Your task to perform on an android device: turn off priority inbox in the gmail app Image 0: 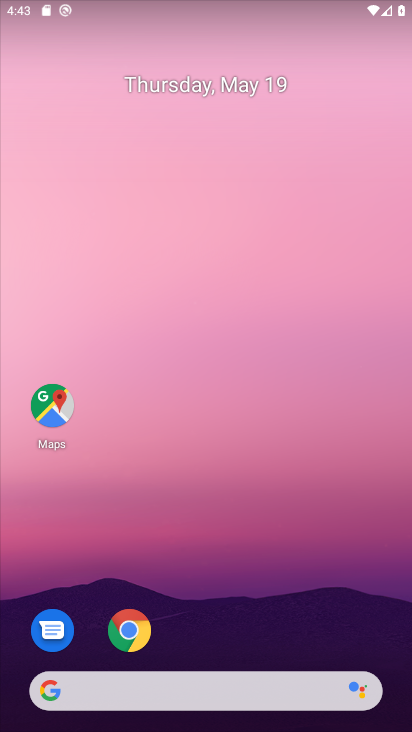
Step 0: drag from (259, 590) to (241, 58)
Your task to perform on an android device: turn off priority inbox in the gmail app Image 1: 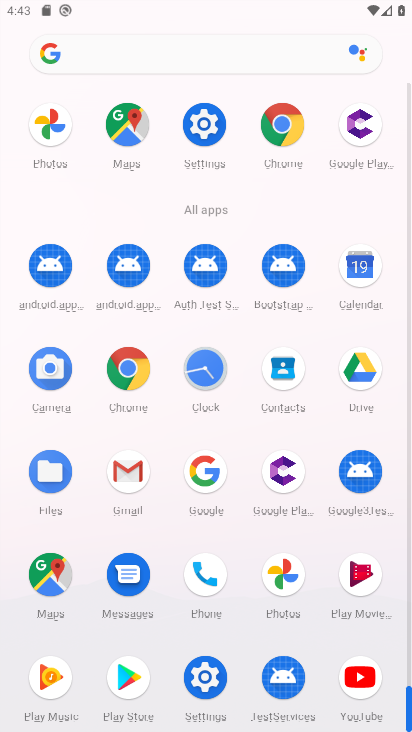
Step 1: drag from (25, 438) to (30, 197)
Your task to perform on an android device: turn off priority inbox in the gmail app Image 2: 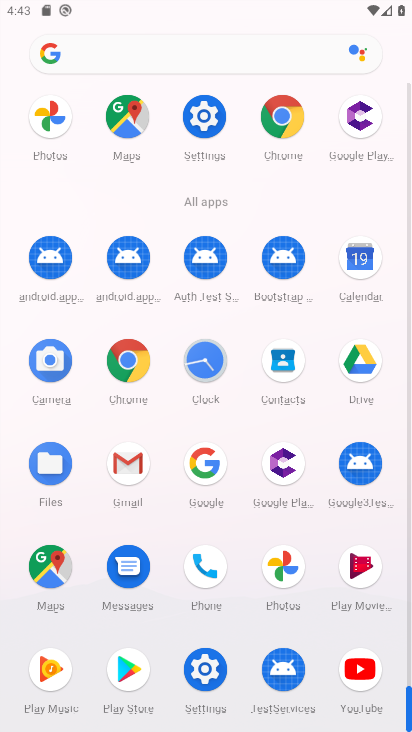
Step 2: click (125, 461)
Your task to perform on an android device: turn off priority inbox in the gmail app Image 3: 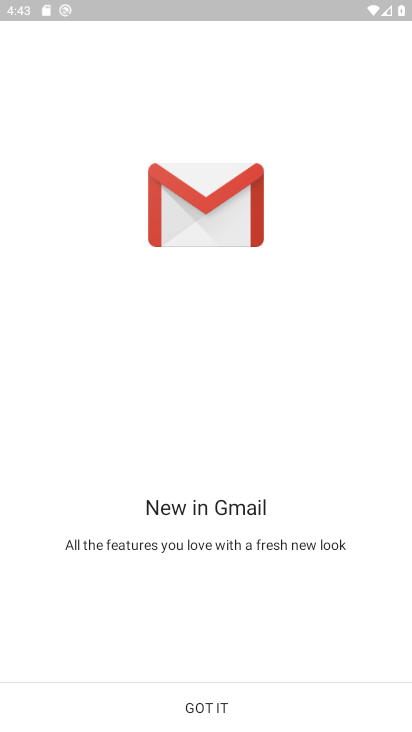
Step 3: click (189, 708)
Your task to perform on an android device: turn off priority inbox in the gmail app Image 4: 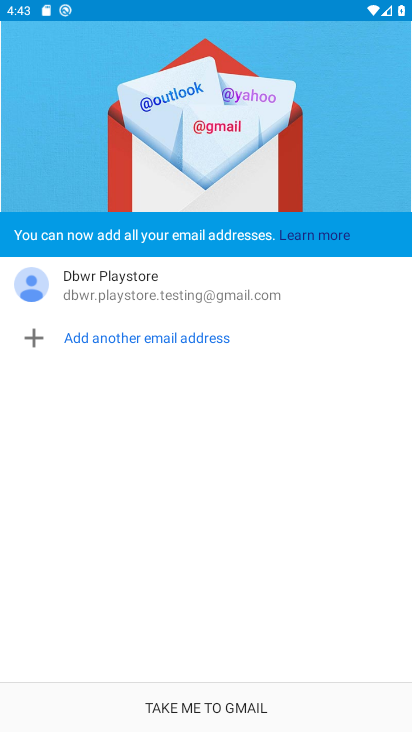
Step 4: click (193, 710)
Your task to perform on an android device: turn off priority inbox in the gmail app Image 5: 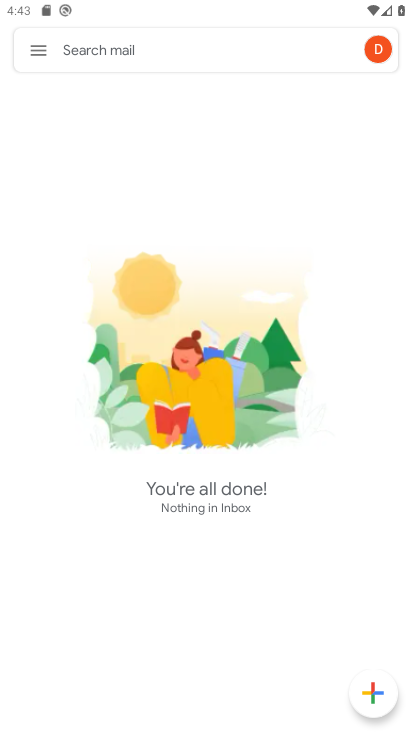
Step 5: click (34, 53)
Your task to perform on an android device: turn off priority inbox in the gmail app Image 6: 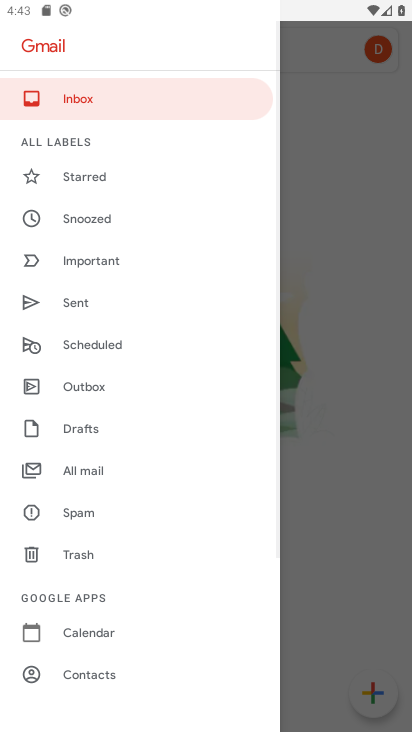
Step 6: drag from (148, 530) to (154, 184)
Your task to perform on an android device: turn off priority inbox in the gmail app Image 7: 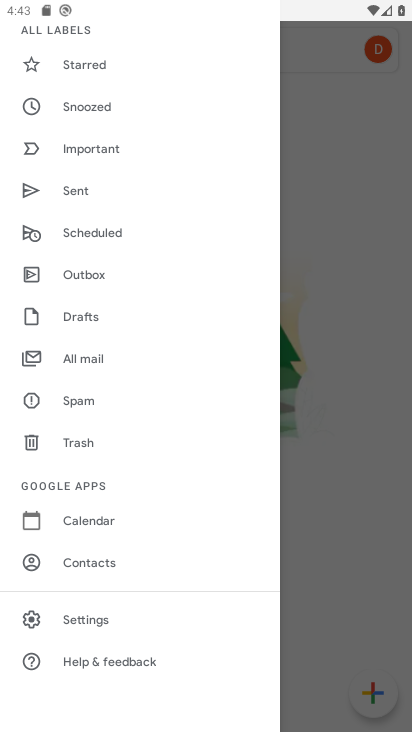
Step 7: click (85, 616)
Your task to perform on an android device: turn off priority inbox in the gmail app Image 8: 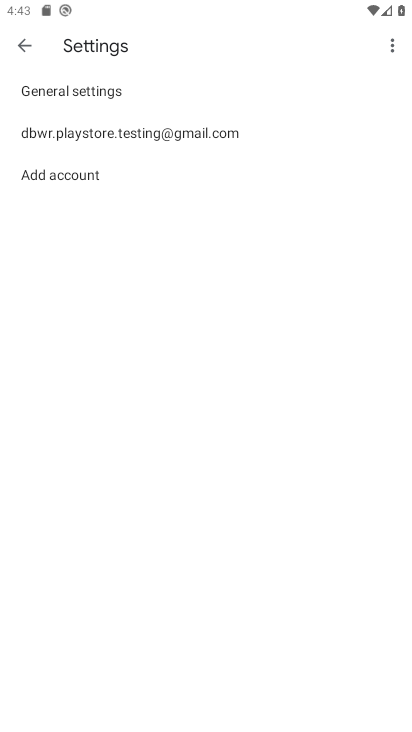
Step 8: click (145, 126)
Your task to perform on an android device: turn off priority inbox in the gmail app Image 9: 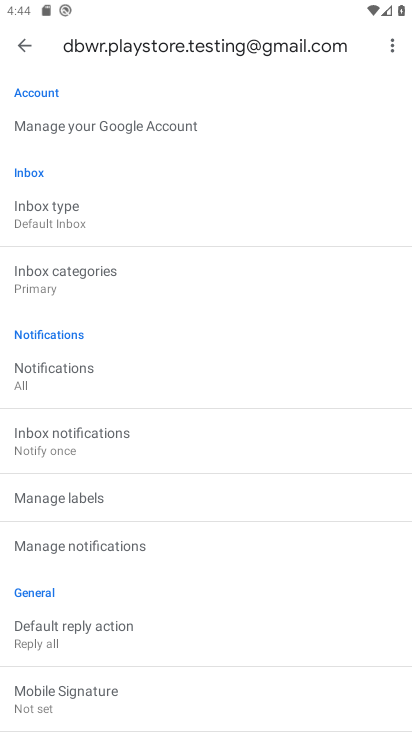
Step 9: click (76, 220)
Your task to perform on an android device: turn off priority inbox in the gmail app Image 10: 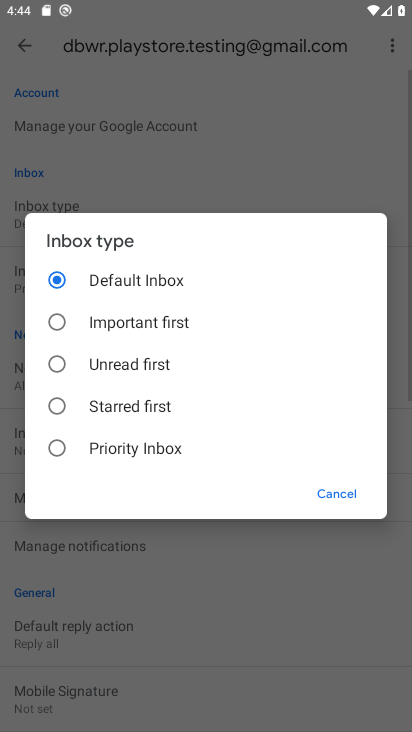
Step 10: click (104, 442)
Your task to perform on an android device: turn off priority inbox in the gmail app Image 11: 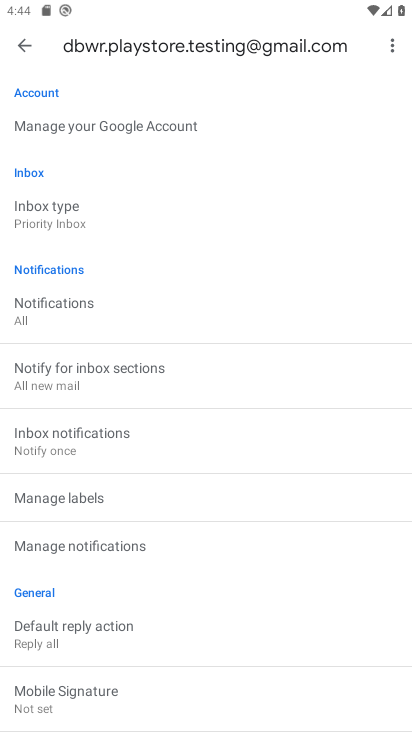
Step 11: click (108, 215)
Your task to perform on an android device: turn off priority inbox in the gmail app Image 12: 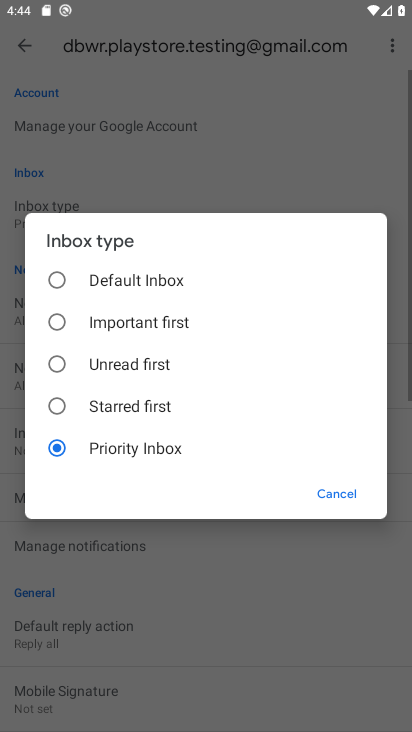
Step 12: click (109, 273)
Your task to perform on an android device: turn off priority inbox in the gmail app Image 13: 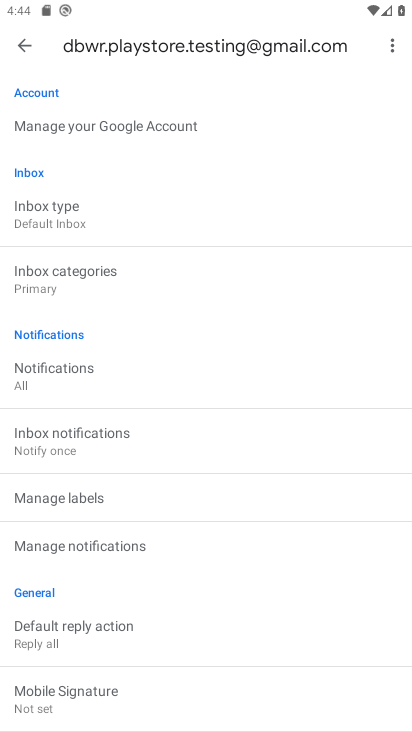
Step 13: task complete